Your task to perform on an android device: manage bookmarks in the chrome app Image 0: 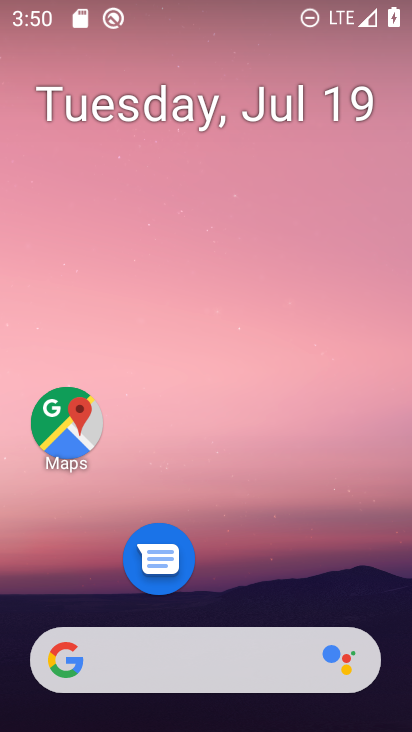
Step 0: drag from (230, 656) to (327, 258)
Your task to perform on an android device: manage bookmarks in the chrome app Image 1: 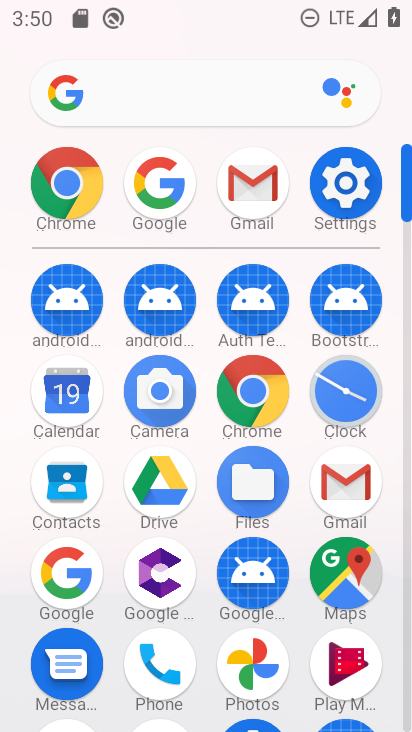
Step 1: click (264, 407)
Your task to perform on an android device: manage bookmarks in the chrome app Image 2: 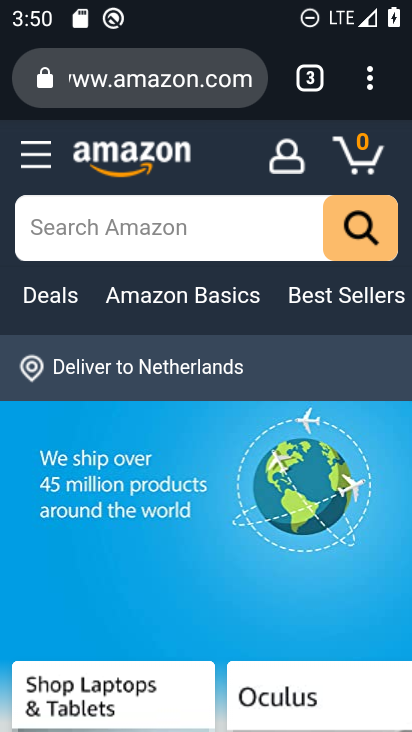
Step 2: click (372, 91)
Your task to perform on an android device: manage bookmarks in the chrome app Image 3: 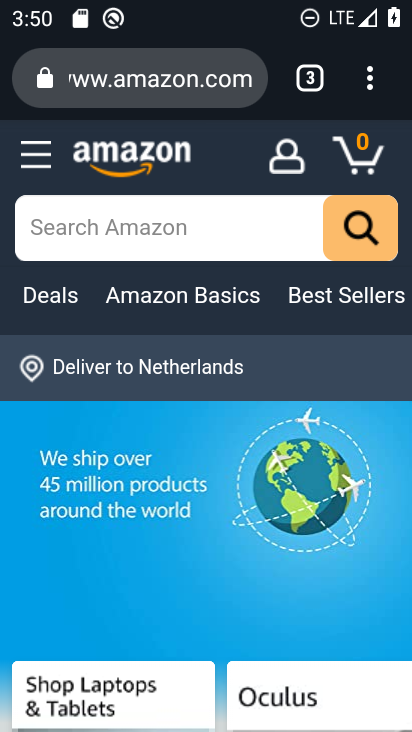
Step 3: click (369, 85)
Your task to perform on an android device: manage bookmarks in the chrome app Image 4: 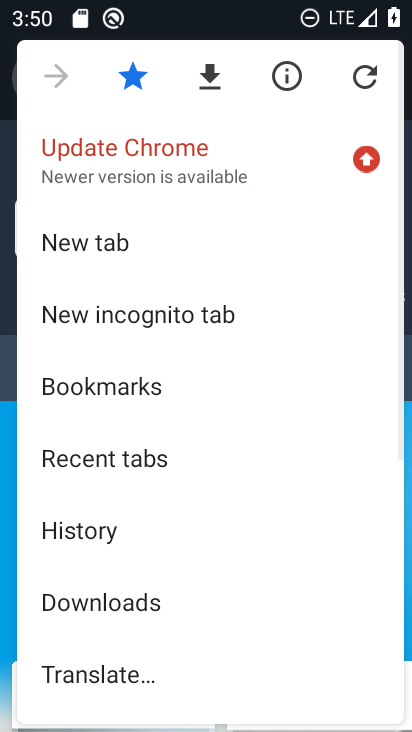
Step 4: drag from (178, 573) to (247, 329)
Your task to perform on an android device: manage bookmarks in the chrome app Image 5: 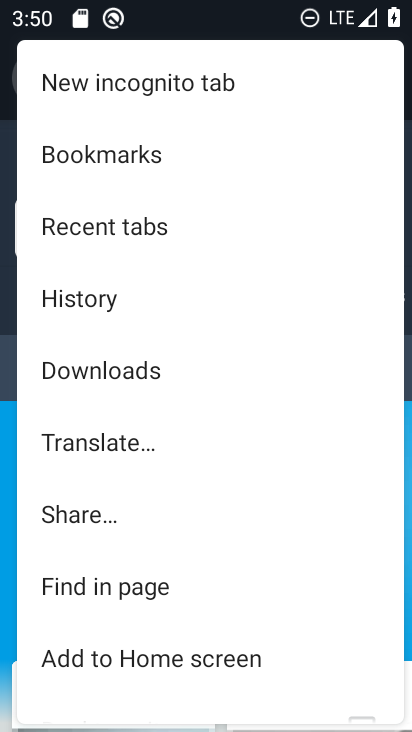
Step 5: click (122, 157)
Your task to perform on an android device: manage bookmarks in the chrome app Image 6: 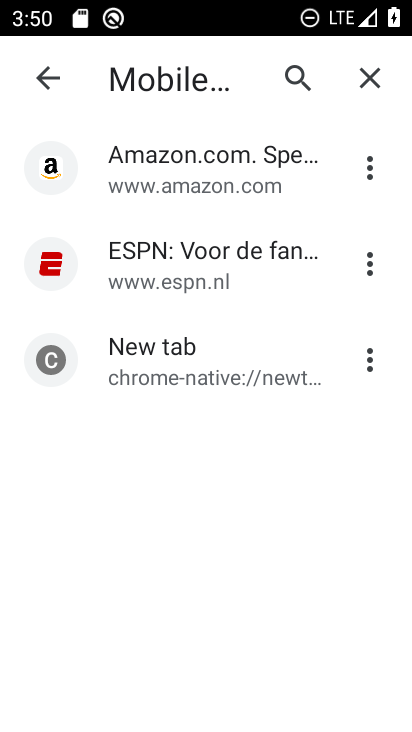
Step 6: task complete